Your task to perform on an android device: Go to Wikipedia Image 0: 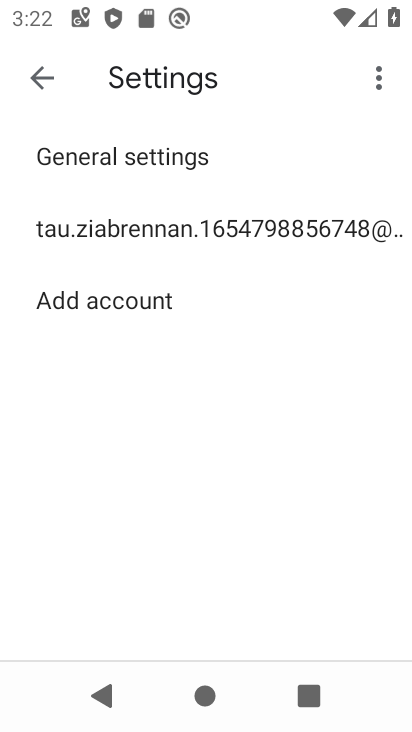
Step 0: press home button
Your task to perform on an android device: Go to Wikipedia Image 1: 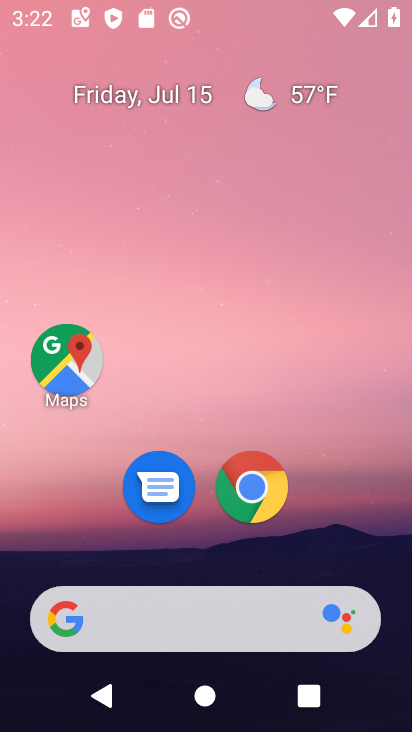
Step 1: drag from (234, 681) to (208, 195)
Your task to perform on an android device: Go to Wikipedia Image 2: 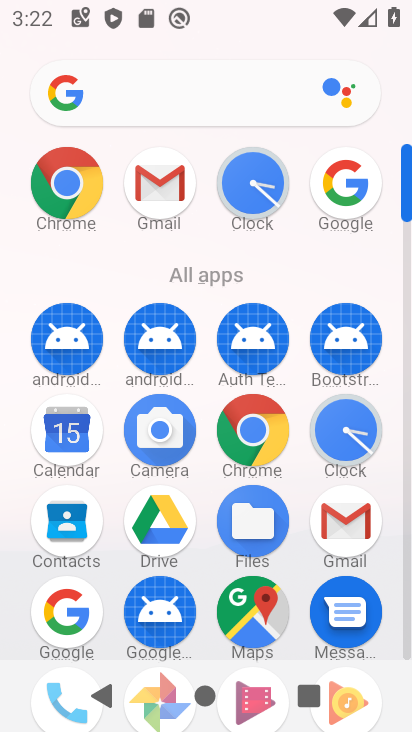
Step 2: drag from (161, 492) to (162, 164)
Your task to perform on an android device: Go to Wikipedia Image 3: 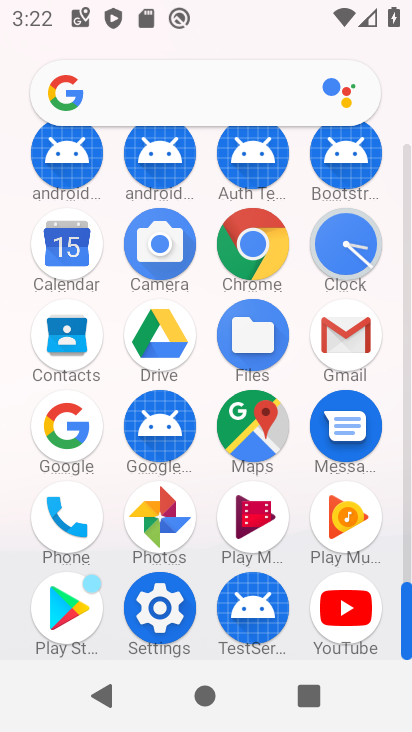
Step 3: click (72, 458)
Your task to perform on an android device: Go to Wikipedia Image 4: 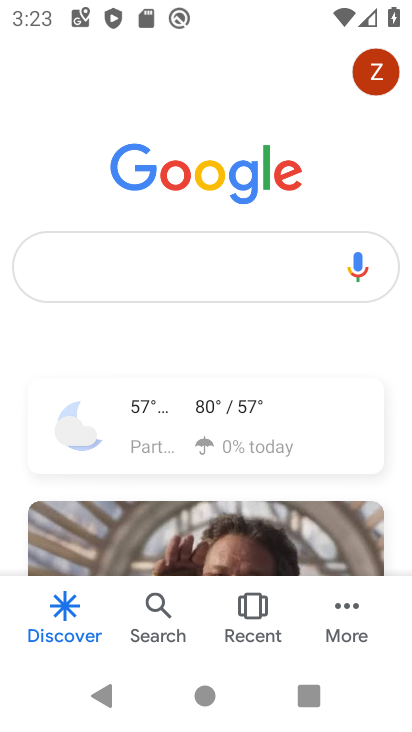
Step 4: click (173, 298)
Your task to perform on an android device: Go to Wikipedia Image 5: 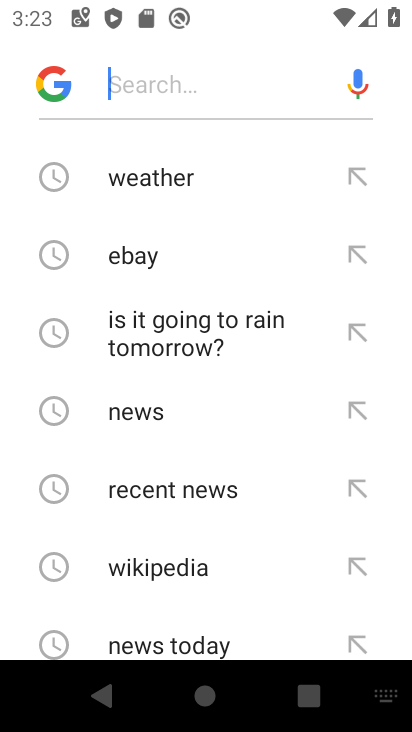
Step 5: click (149, 563)
Your task to perform on an android device: Go to Wikipedia Image 6: 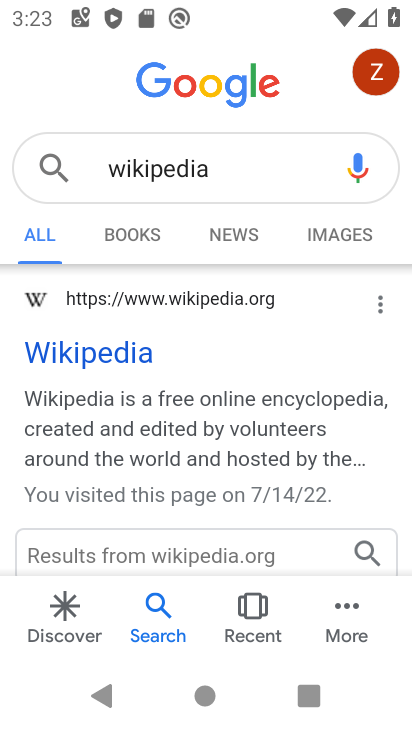
Step 6: click (68, 355)
Your task to perform on an android device: Go to Wikipedia Image 7: 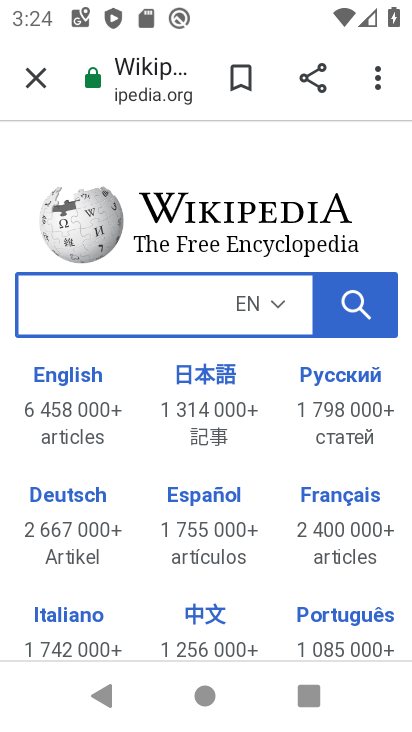
Step 7: task complete